Your task to perform on an android device: stop showing notifications on the lock screen Image 0: 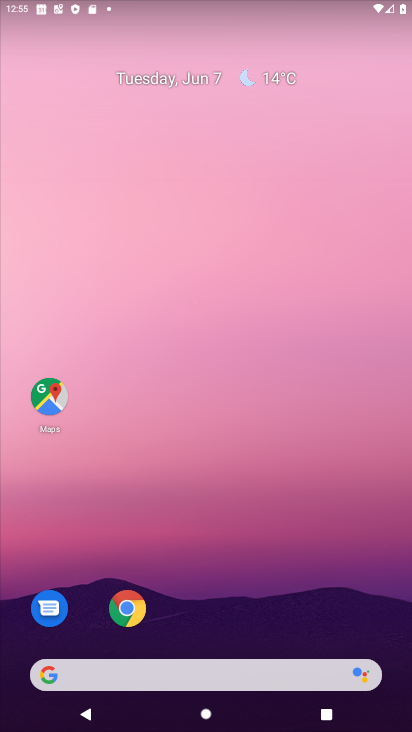
Step 0: drag from (298, 633) to (319, 119)
Your task to perform on an android device: stop showing notifications on the lock screen Image 1: 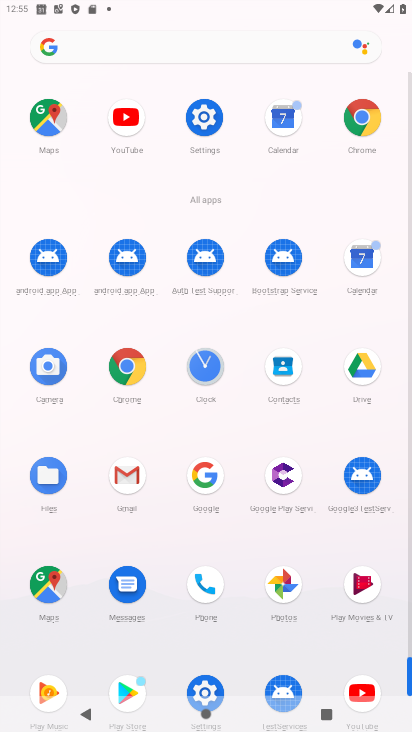
Step 1: click (200, 117)
Your task to perform on an android device: stop showing notifications on the lock screen Image 2: 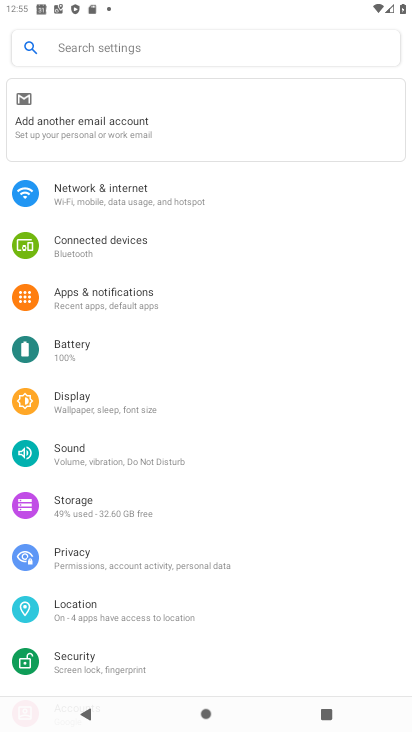
Step 2: click (109, 301)
Your task to perform on an android device: stop showing notifications on the lock screen Image 3: 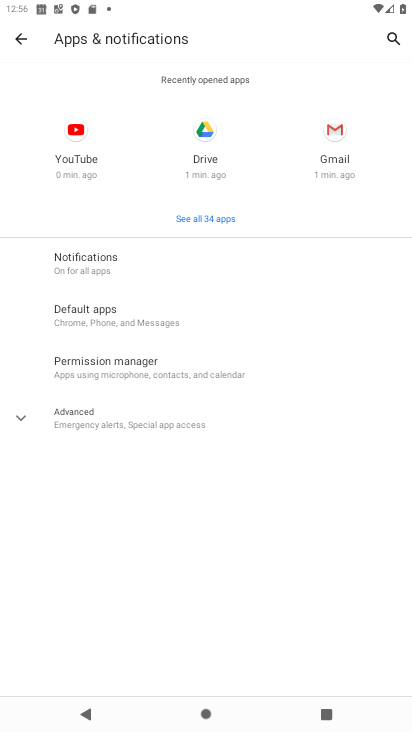
Step 3: click (169, 262)
Your task to perform on an android device: stop showing notifications on the lock screen Image 4: 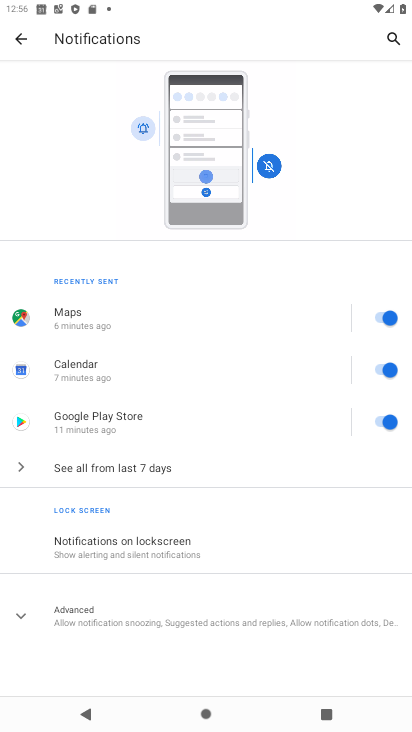
Step 4: click (120, 552)
Your task to perform on an android device: stop showing notifications on the lock screen Image 5: 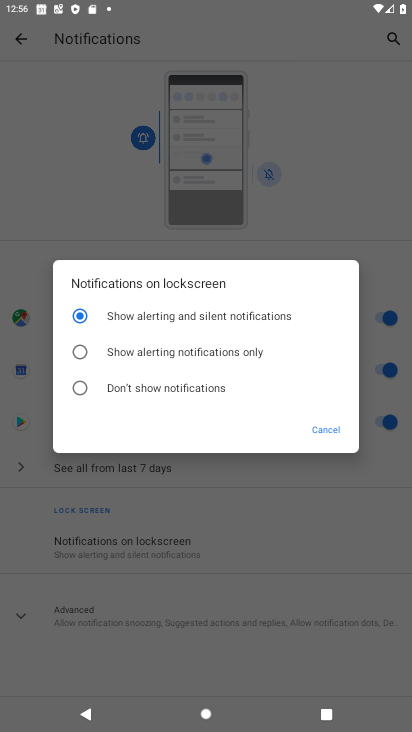
Step 5: click (77, 386)
Your task to perform on an android device: stop showing notifications on the lock screen Image 6: 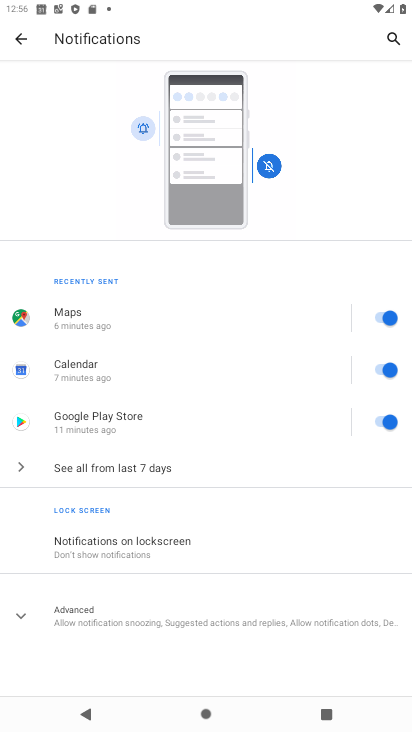
Step 6: task complete